Your task to perform on an android device: toggle javascript in the chrome app Image 0: 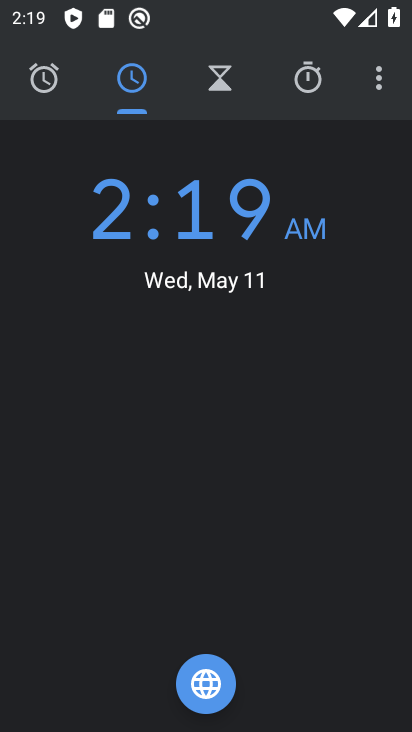
Step 0: press home button
Your task to perform on an android device: toggle javascript in the chrome app Image 1: 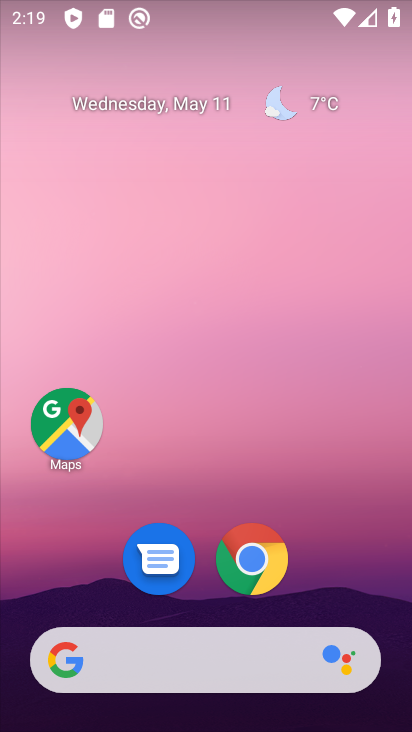
Step 1: click (252, 558)
Your task to perform on an android device: toggle javascript in the chrome app Image 2: 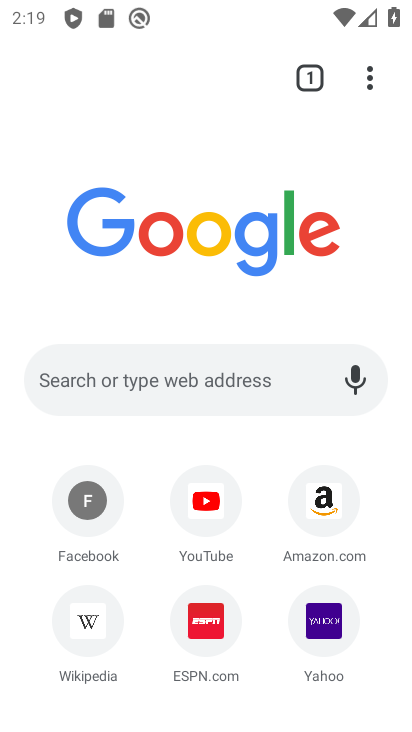
Step 2: click (363, 83)
Your task to perform on an android device: toggle javascript in the chrome app Image 3: 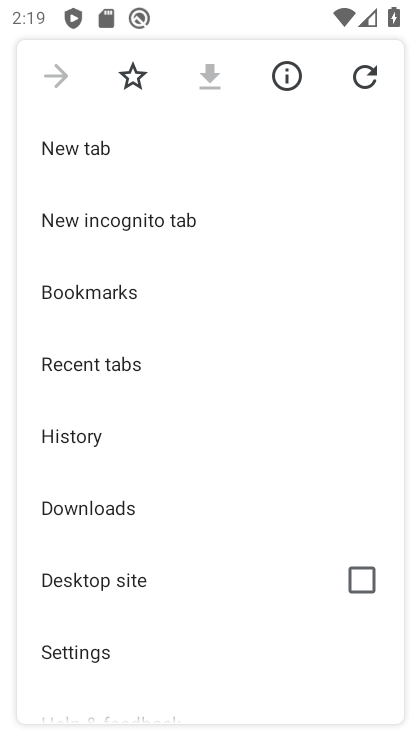
Step 3: click (147, 656)
Your task to perform on an android device: toggle javascript in the chrome app Image 4: 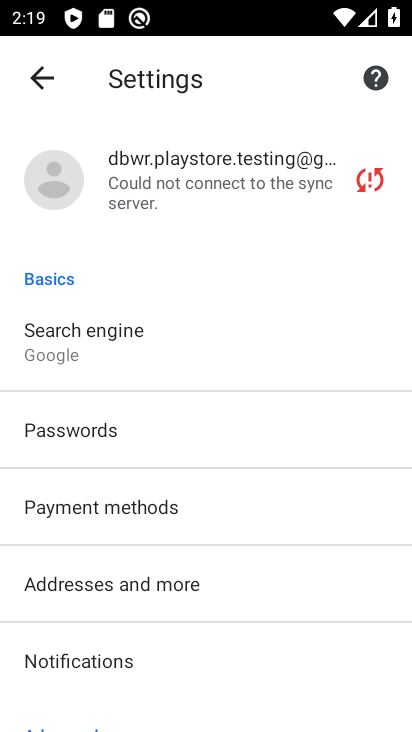
Step 4: drag from (183, 585) to (194, 257)
Your task to perform on an android device: toggle javascript in the chrome app Image 5: 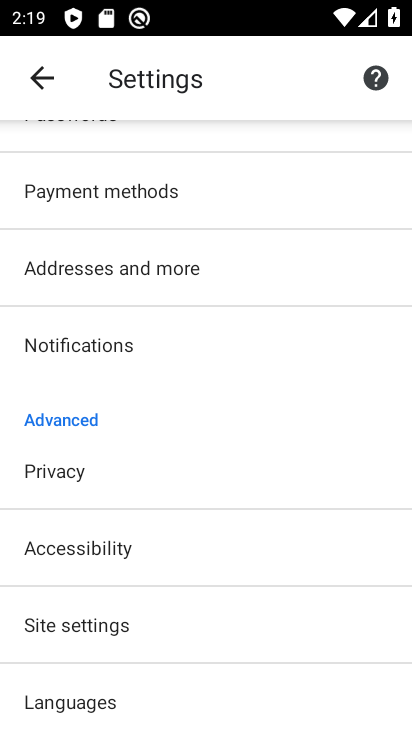
Step 5: click (142, 623)
Your task to perform on an android device: toggle javascript in the chrome app Image 6: 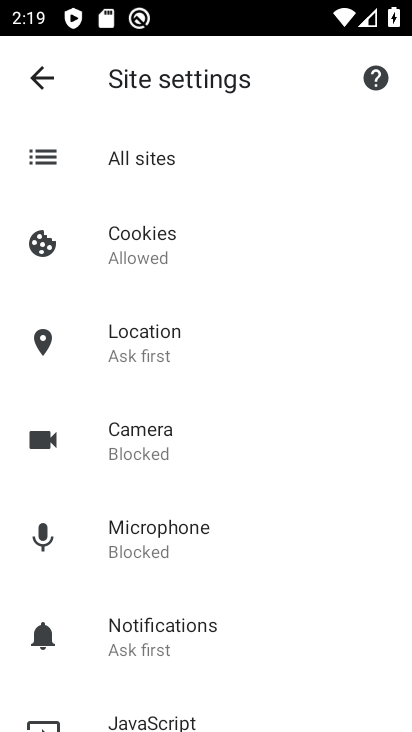
Step 6: drag from (215, 587) to (200, 244)
Your task to perform on an android device: toggle javascript in the chrome app Image 7: 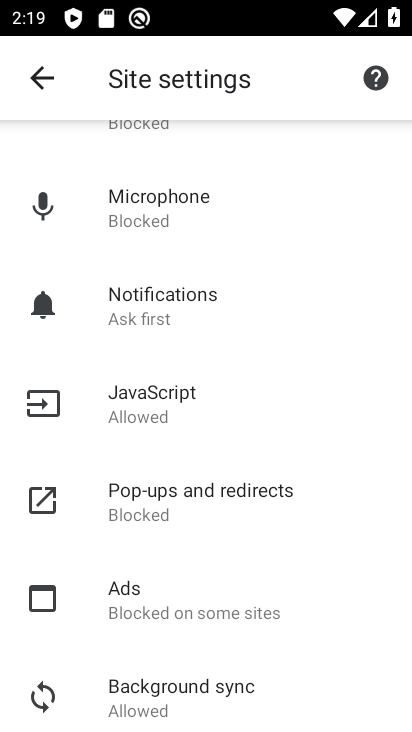
Step 7: click (186, 409)
Your task to perform on an android device: toggle javascript in the chrome app Image 8: 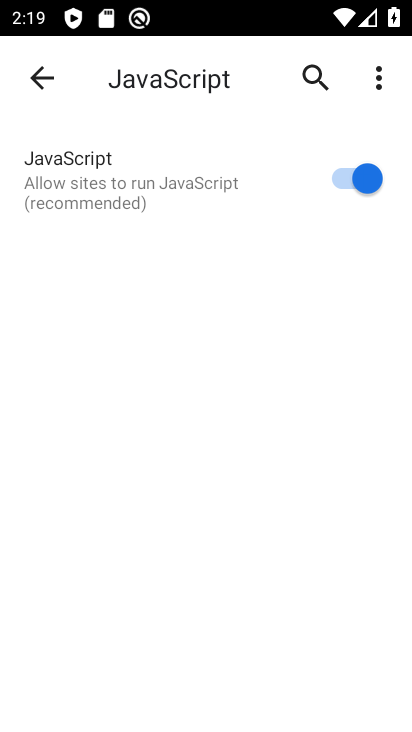
Step 8: click (355, 177)
Your task to perform on an android device: toggle javascript in the chrome app Image 9: 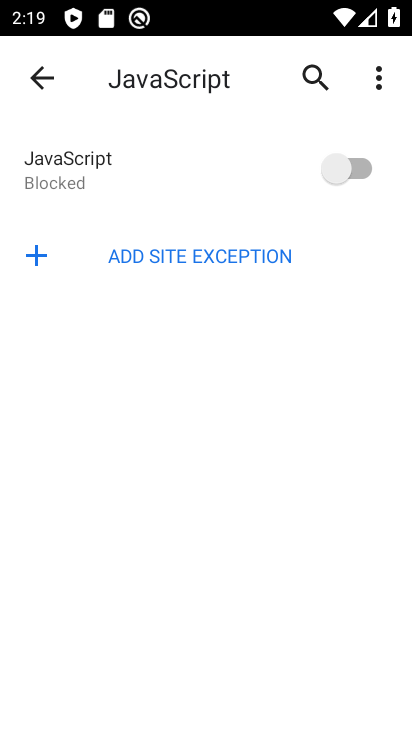
Step 9: task complete